Your task to perform on an android device: Search for Mexican restaurants on Maps Image 0: 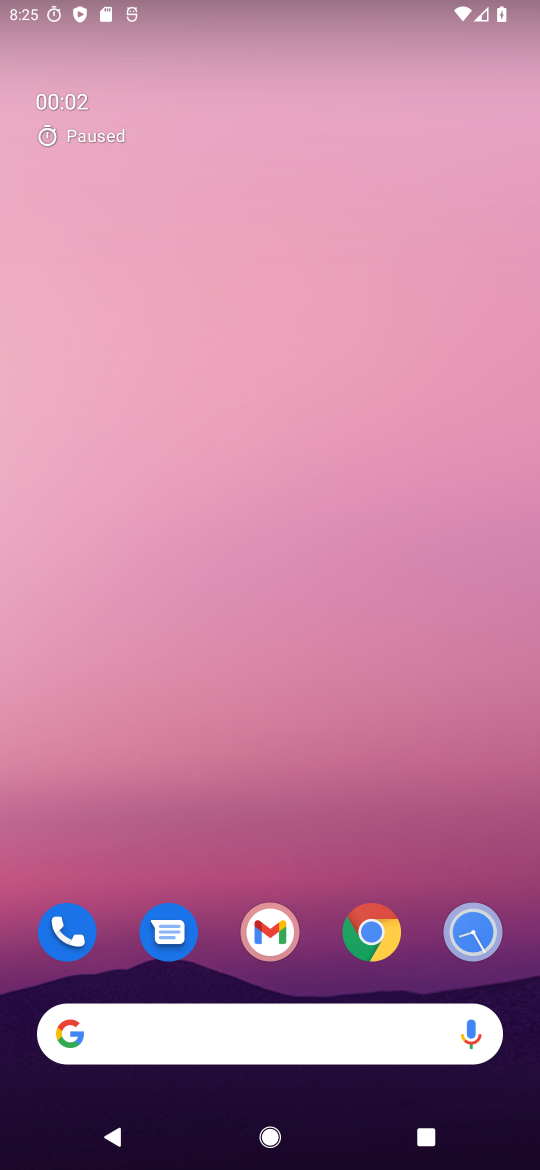
Step 0: press home button
Your task to perform on an android device: Search for Mexican restaurants on Maps Image 1: 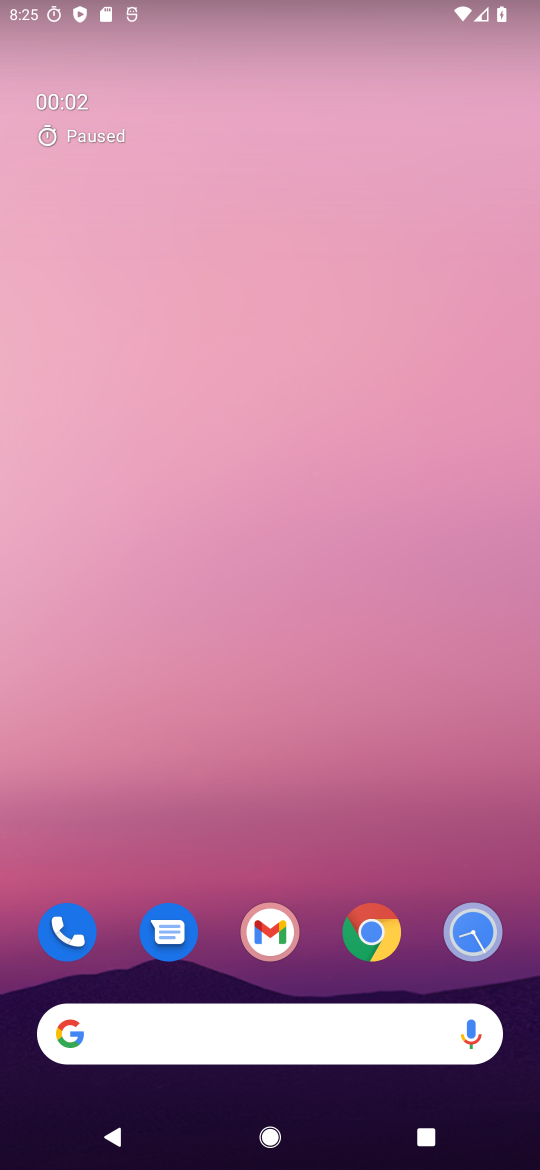
Step 1: drag from (246, 1040) to (418, 485)
Your task to perform on an android device: Search for Mexican restaurants on Maps Image 2: 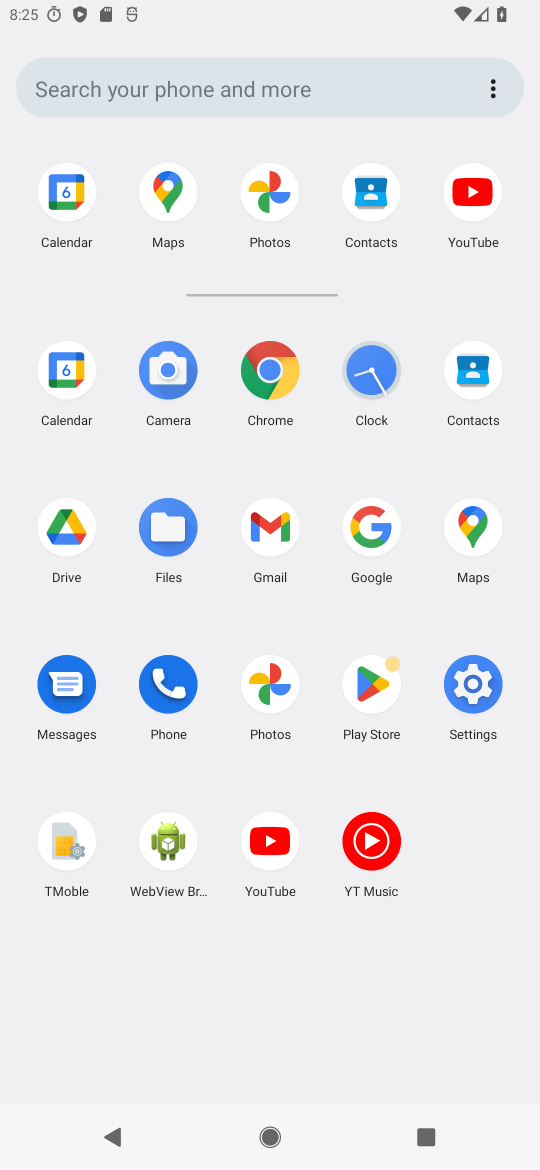
Step 2: click (476, 522)
Your task to perform on an android device: Search for Mexican restaurants on Maps Image 3: 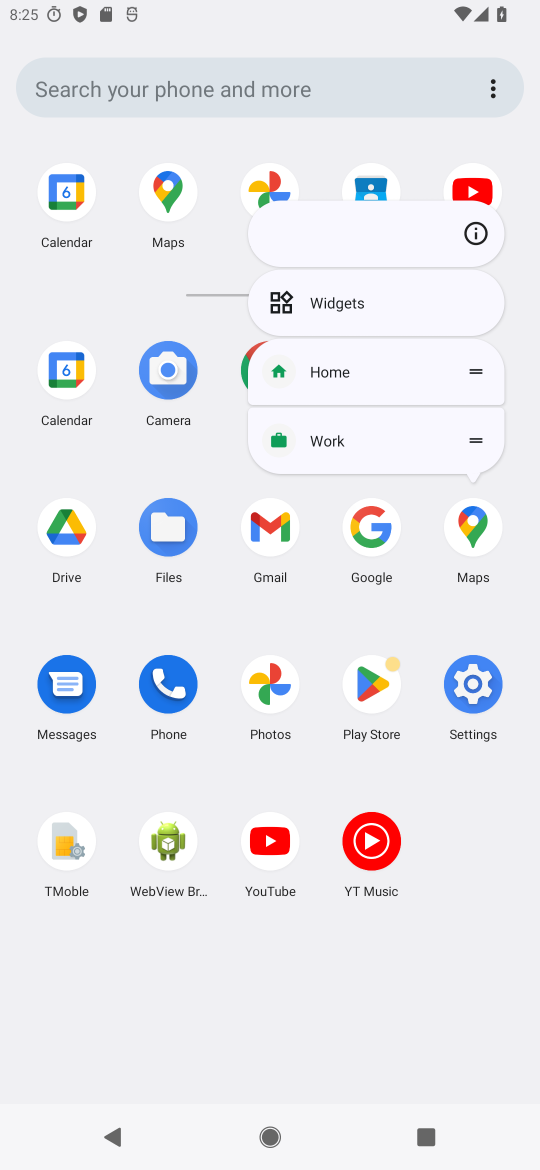
Step 3: click (476, 521)
Your task to perform on an android device: Search for Mexican restaurants on Maps Image 4: 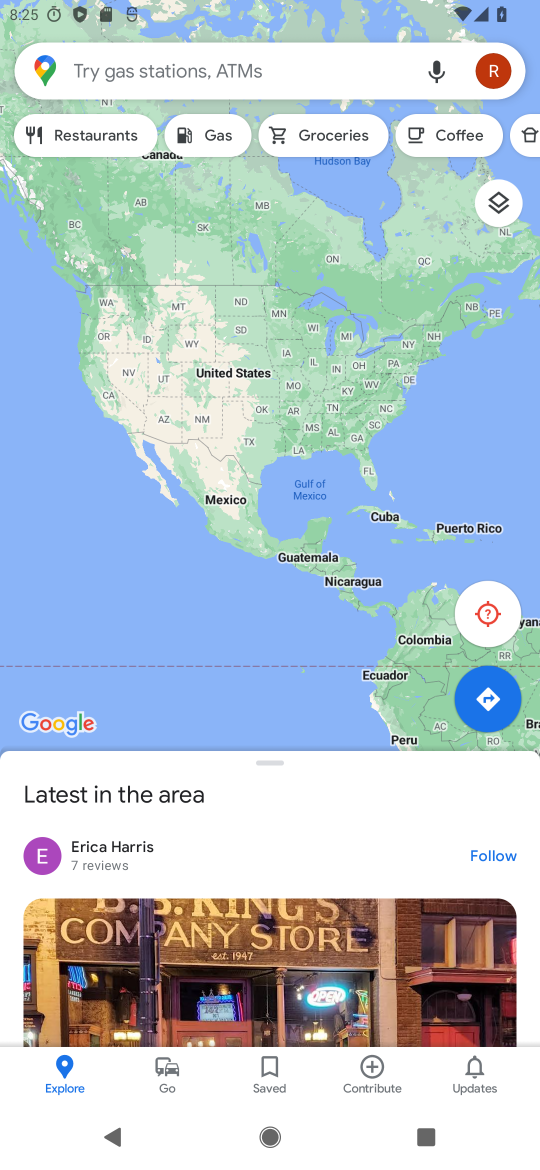
Step 4: click (84, 65)
Your task to perform on an android device: Search for Mexican restaurants on Maps Image 5: 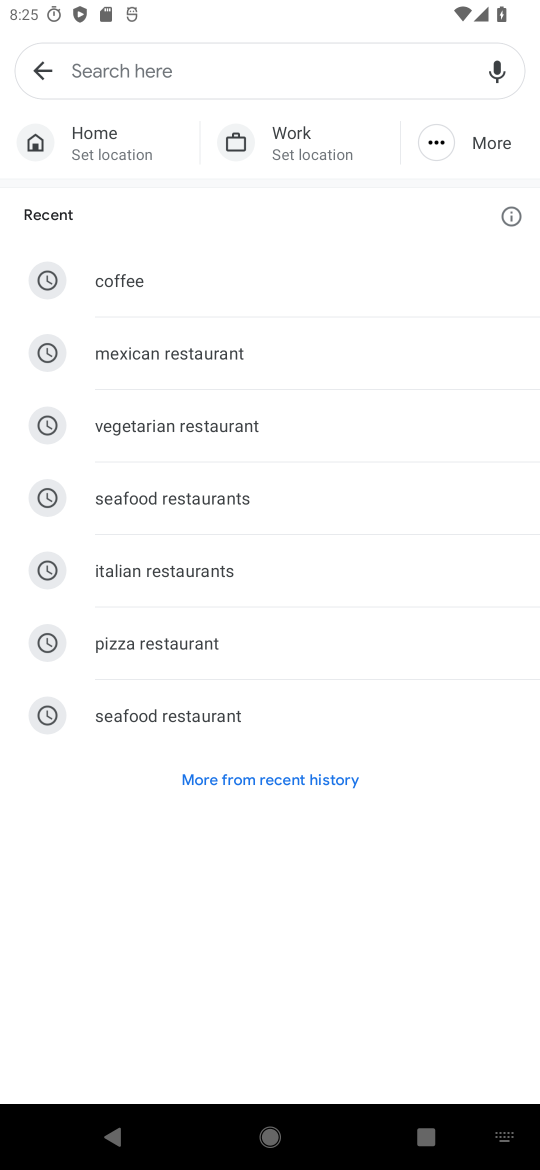
Step 5: click (148, 343)
Your task to perform on an android device: Search for Mexican restaurants on Maps Image 6: 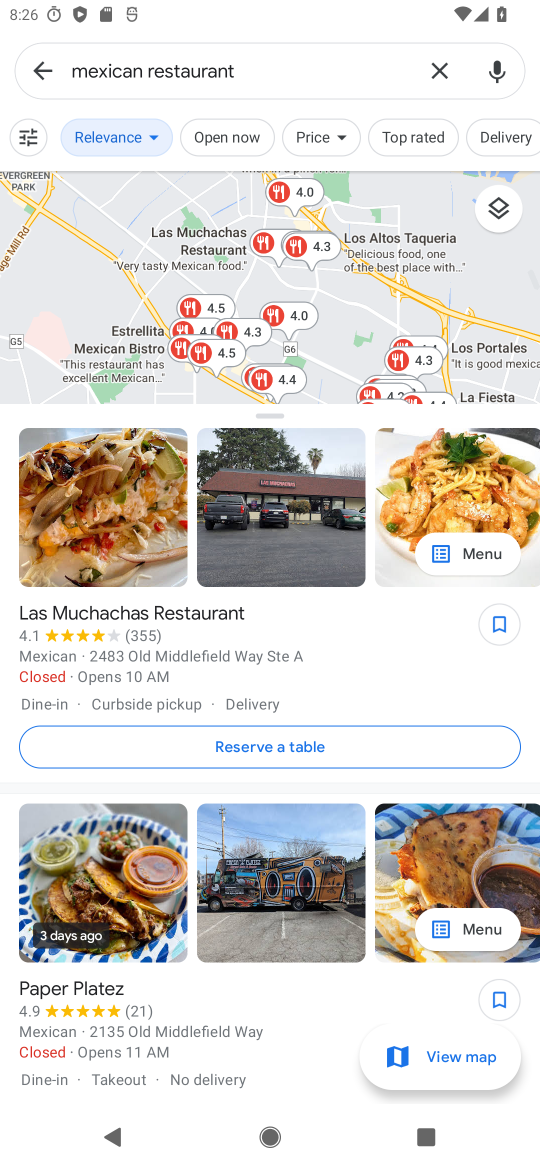
Step 6: task complete